Your task to perform on an android device: change timer sound Image 0: 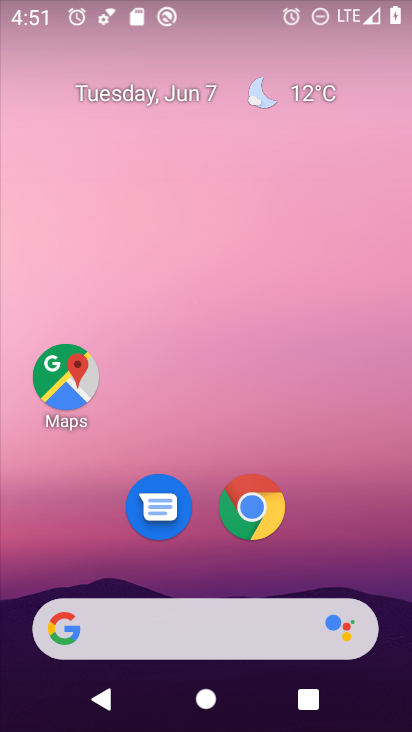
Step 0: drag from (362, 573) to (234, 35)
Your task to perform on an android device: change timer sound Image 1: 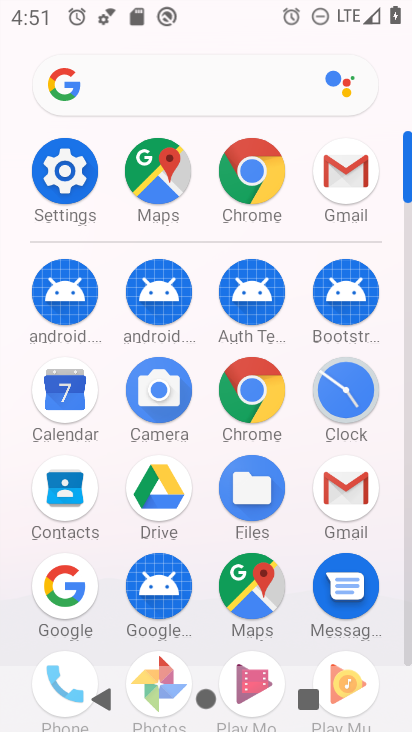
Step 1: drag from (8, 621) to (0, 251)
Your task to perform on an android device: change timer sound Image 2: 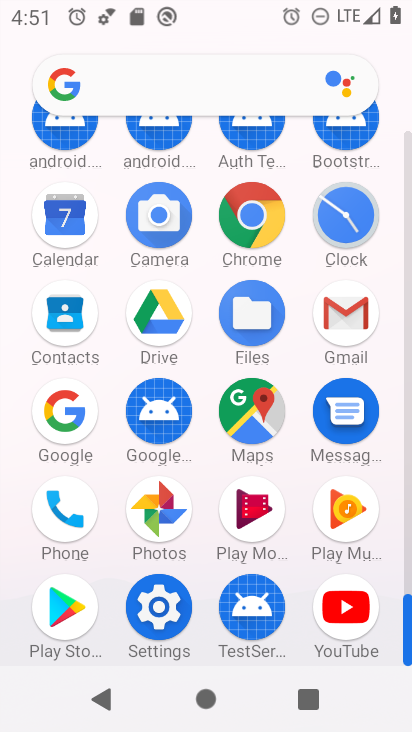
Step 2: click (343, 212)
Your task to perform on an android device: change timer sound Image 3: 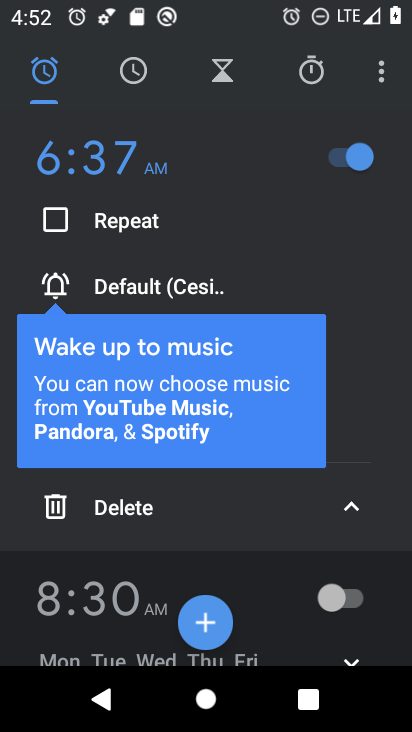
Step 3: drag from (380, 77) to (266, 149)
Your task to perform on an android device: change timer sound Image 4: 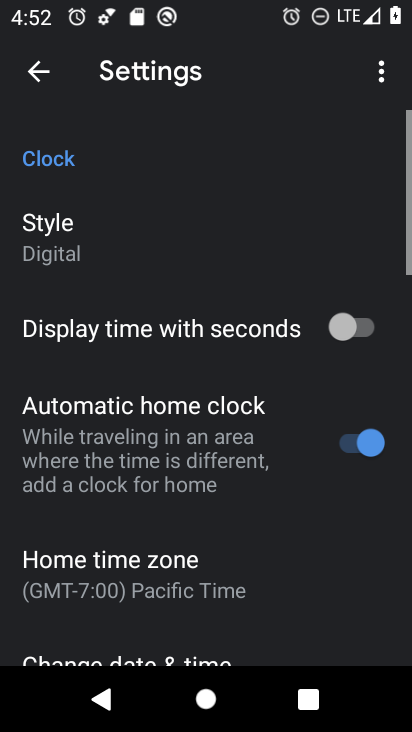
Step 4: drag from (211, 584) to (224, 222)
Your task to perform on an android device: change timer sound Image 5: 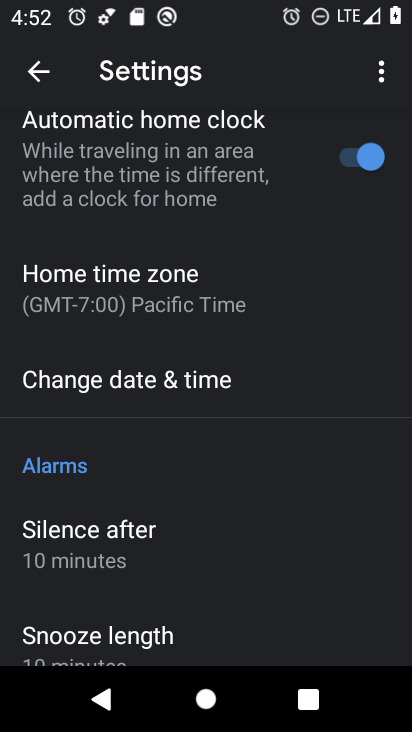
Step 5: drag from (242, 558) to (301, 235)
Your task to perform on an android device: change timer sound Image 6: 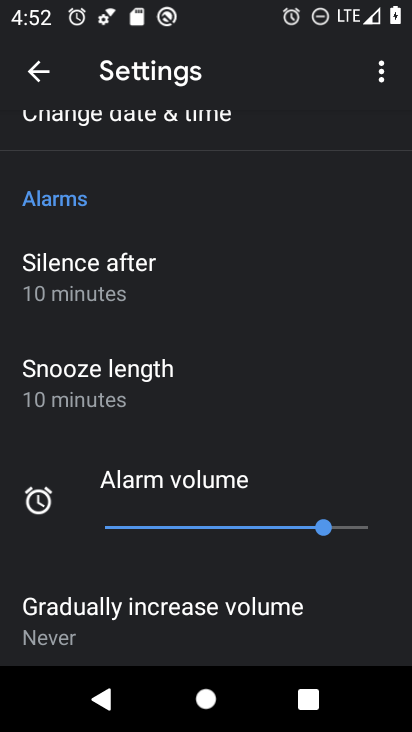
Step 6: drag from (245, 505) to (278, 197)
Your task to perform on an android device: change timer sound Image 7: 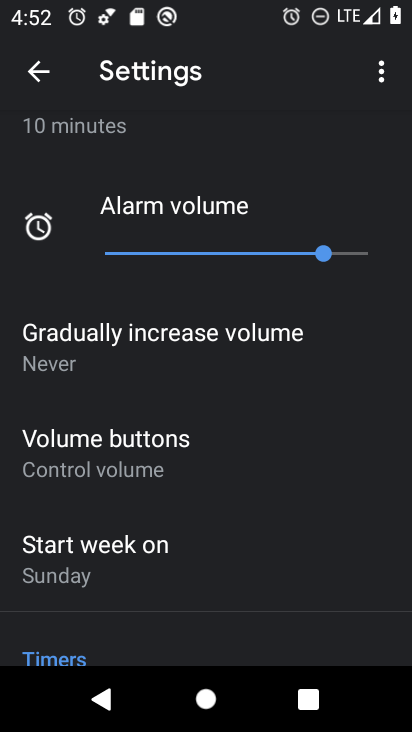
Step 7: drag from (192, 572) to (254, 184)
Your task to perform on an android device: change timer sound Image 8: 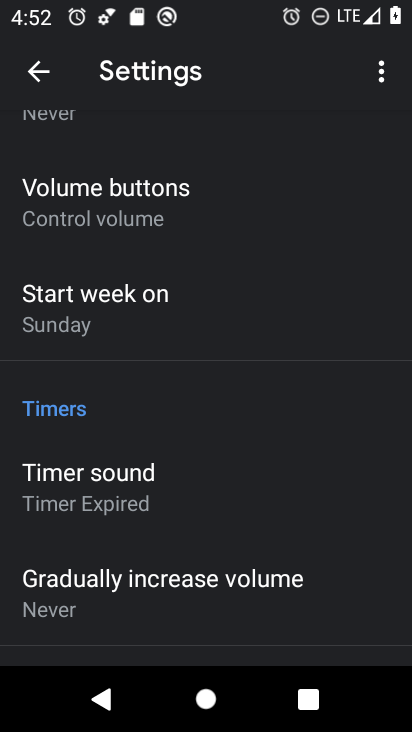
Step 8: click (174, 486)
Your task to perform on an android device: change timer sound Image 9: 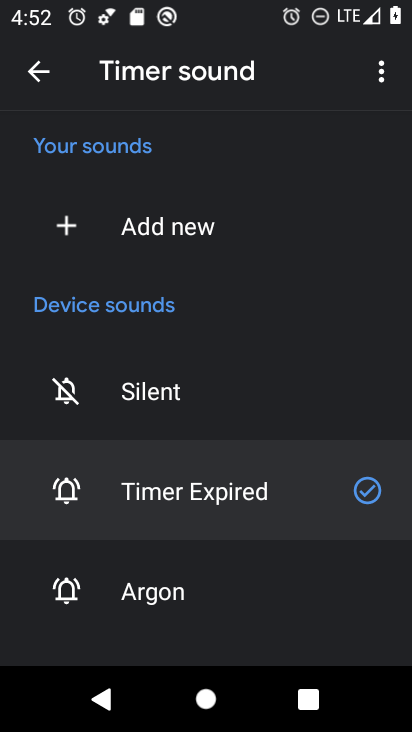
Step 9: click (203, 599)
Your task to perform on an android device: change timer sound Image 10: 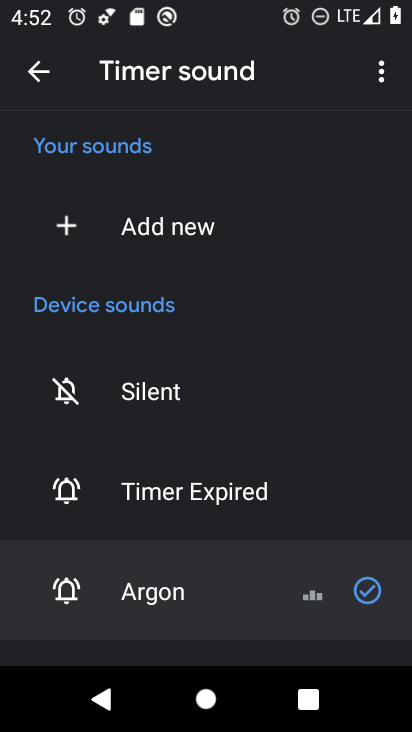
Step 10: task complete